Your task to perform on an android device: star an email in the gmail app Image 0: 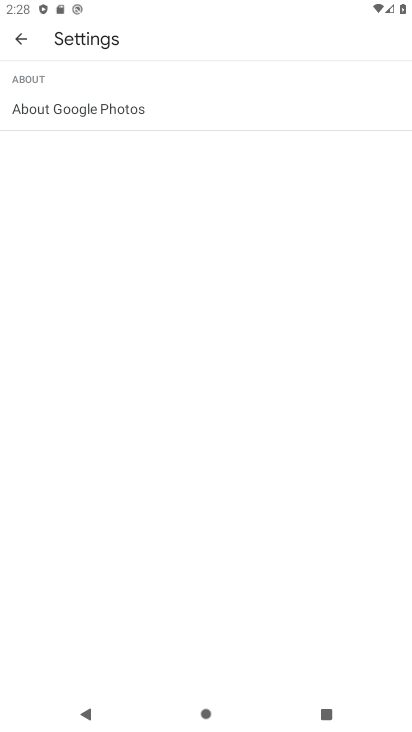
Step 0: press home button
Your task to perform on an android device: star an email in the gmail app Image 1: 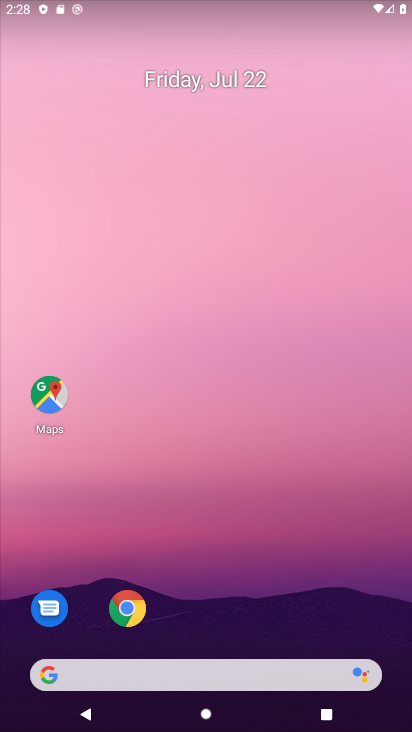
Step 1: drag from (238, 596) to (194, 159)
Your task to perform on an android device: star an email in the gmail app Image 2: 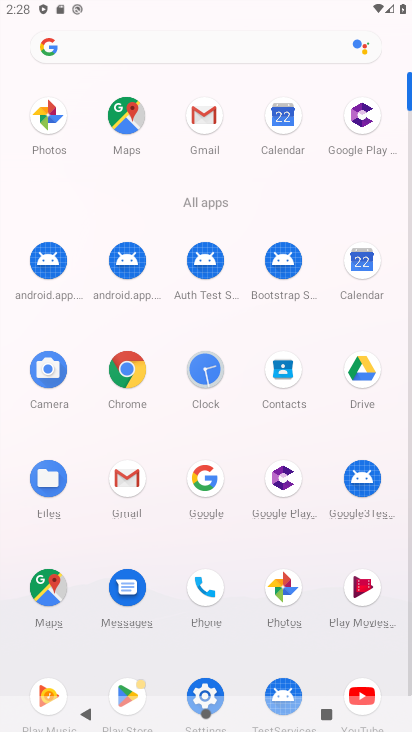
Step 2: click (120, 483)
Your task to perform on an android device: star an email in the gmail app Image 3: 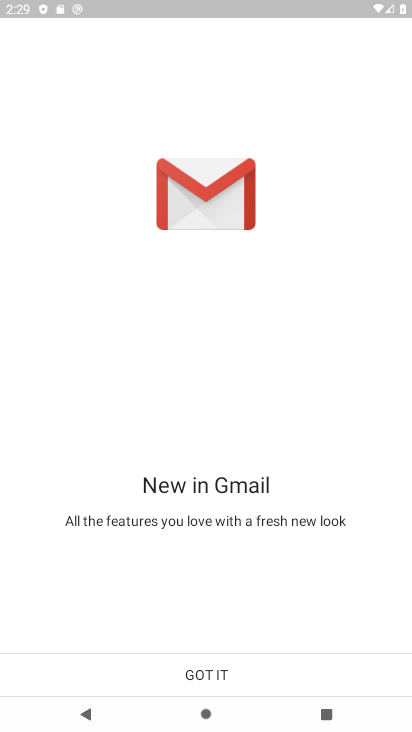
Step 3: click (266, 667)
Your task to perform on an android device: star an email in the gmail app Image 4: 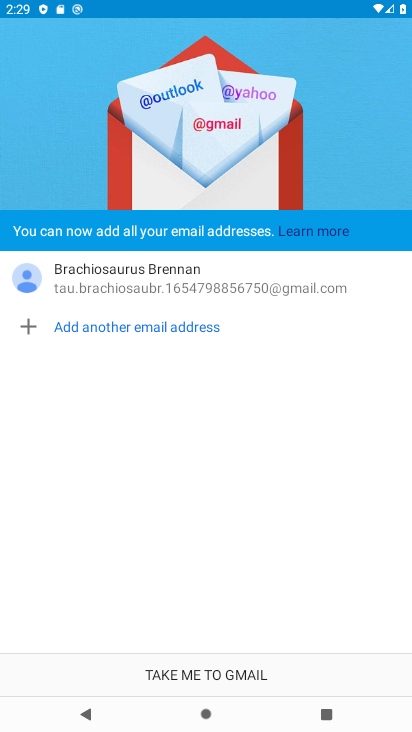
Step 4: click (305, 670)
Your task to perform on an android device: star an email in the gmail app Image 5: 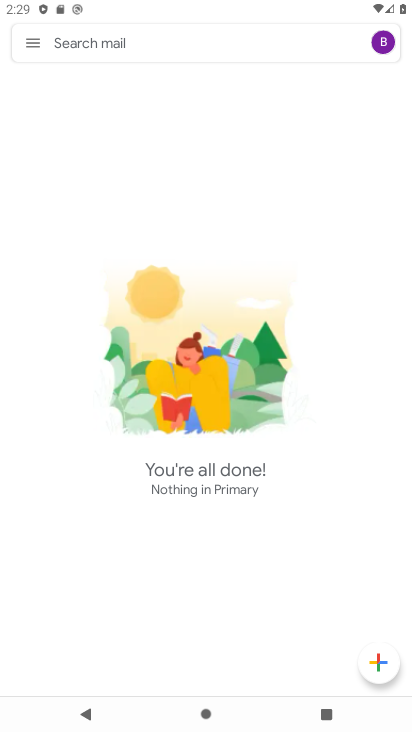
Step 5: click (21, 35)
Your task to perform on an android device: star an email in the gmail app Image 6: 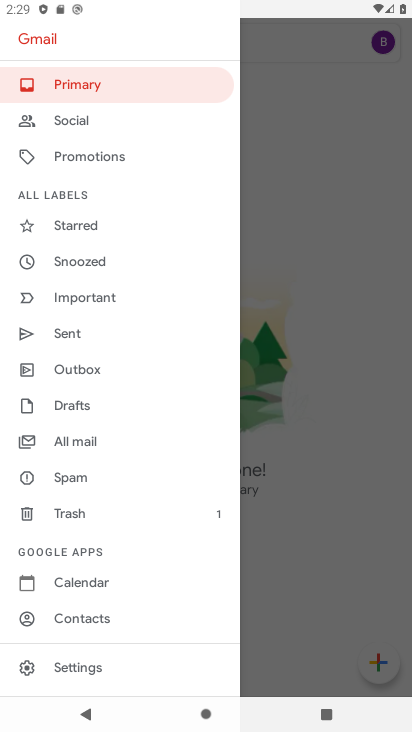
Step 6: click (88, 441)
Your task to perform on an android device: star an email in the gmail app Image 7: 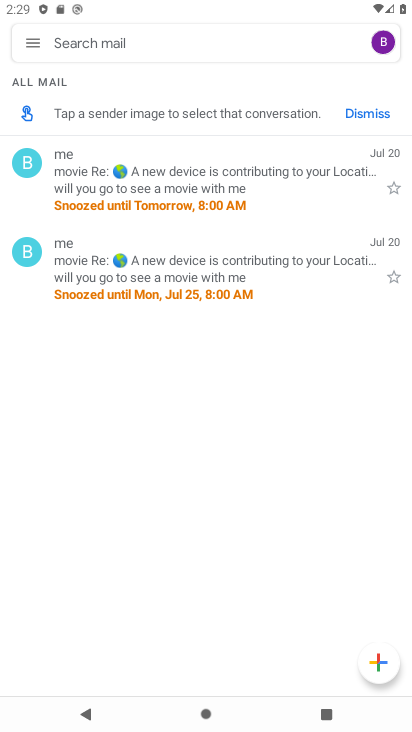
Step 7: click (396, 190)
Your task to perform on an android device: star an email in the gmail app Image 8: 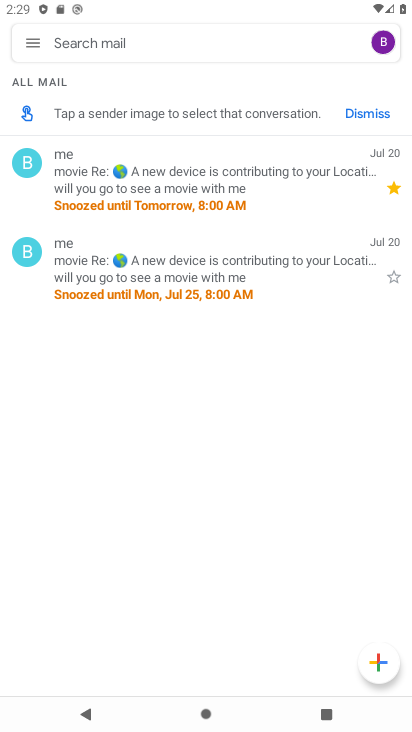
Step 8: task complete